Your task to perform on an android device: open chrome and create a bookmark for the current page Image 0: 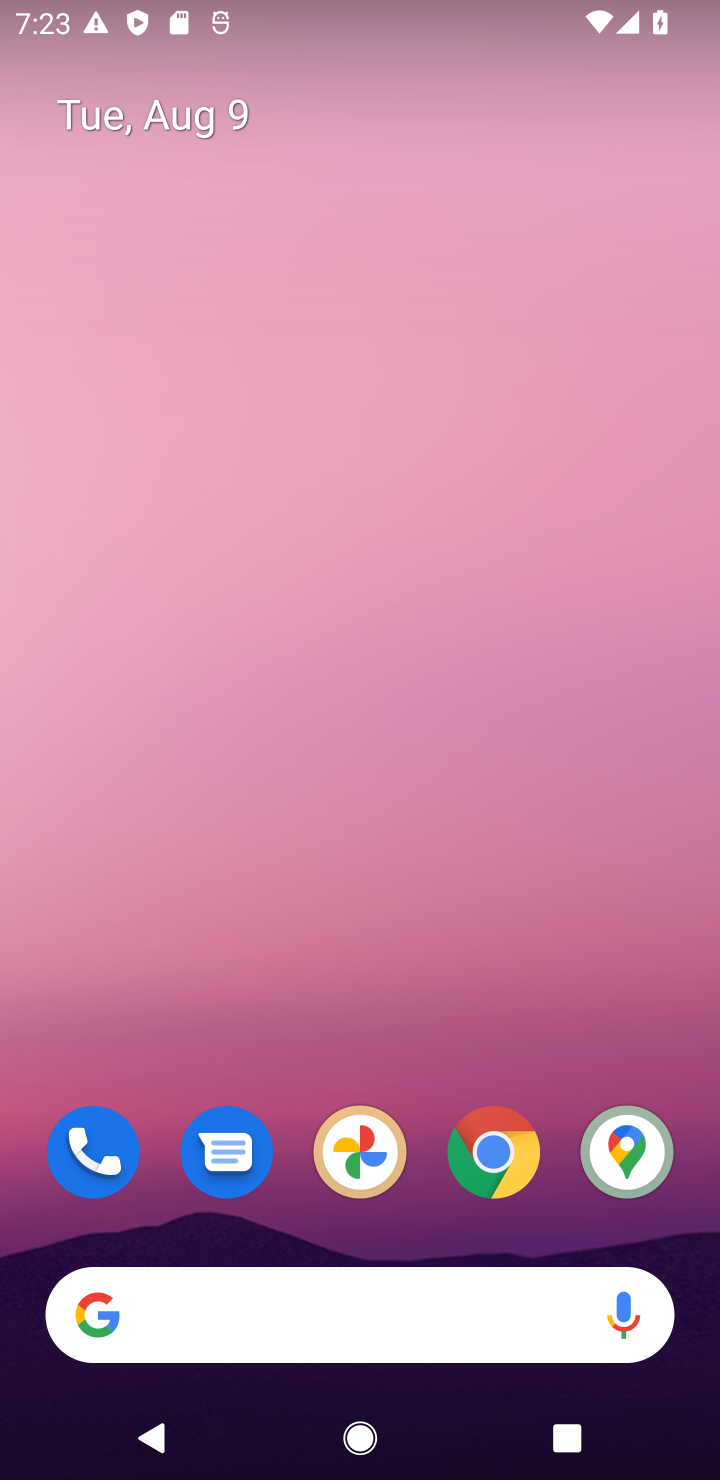
Step 0: click (471, 1171)
Your task to perform on an android device: open chrome and create a bookmark for the current page Image 1: 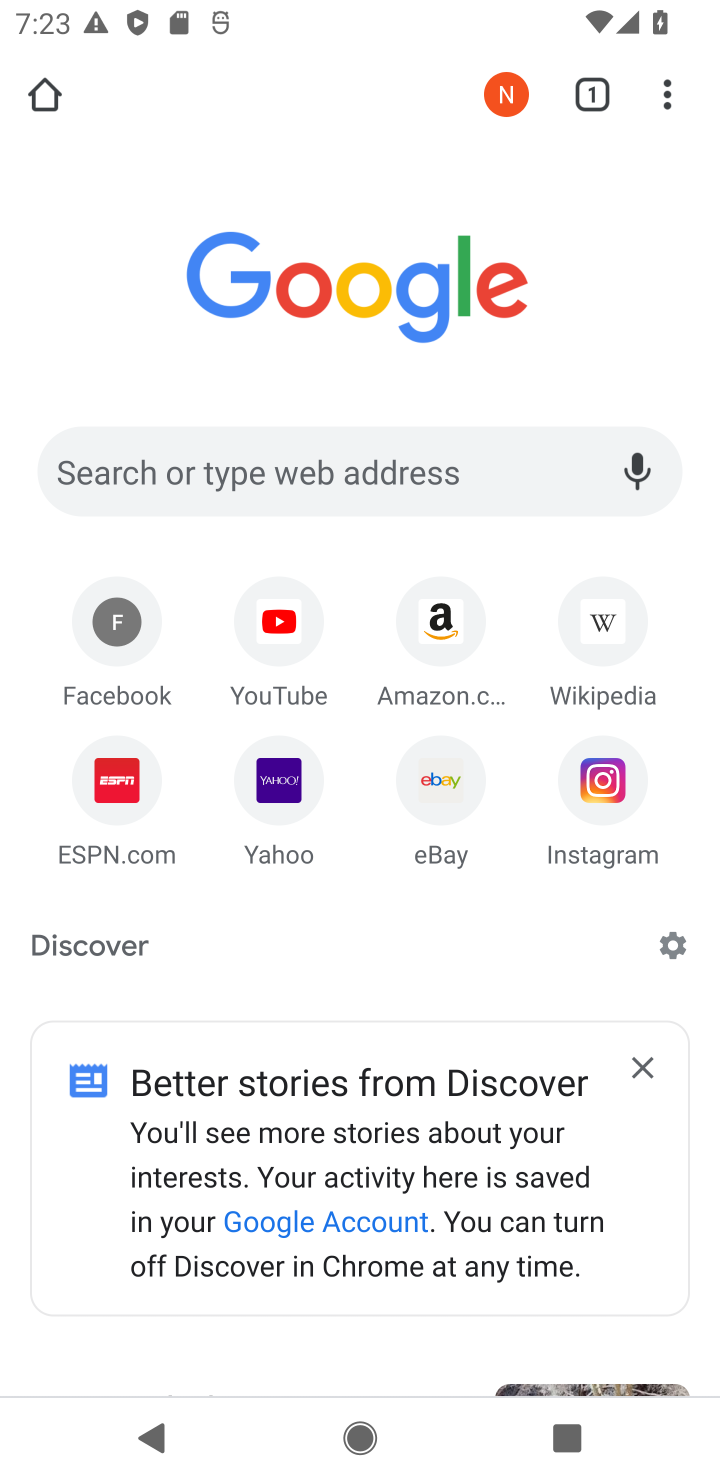
Step 1: click (680, 105)
Your task to perform on an android device: open chrome and create a bookmark for the current page Image 2: 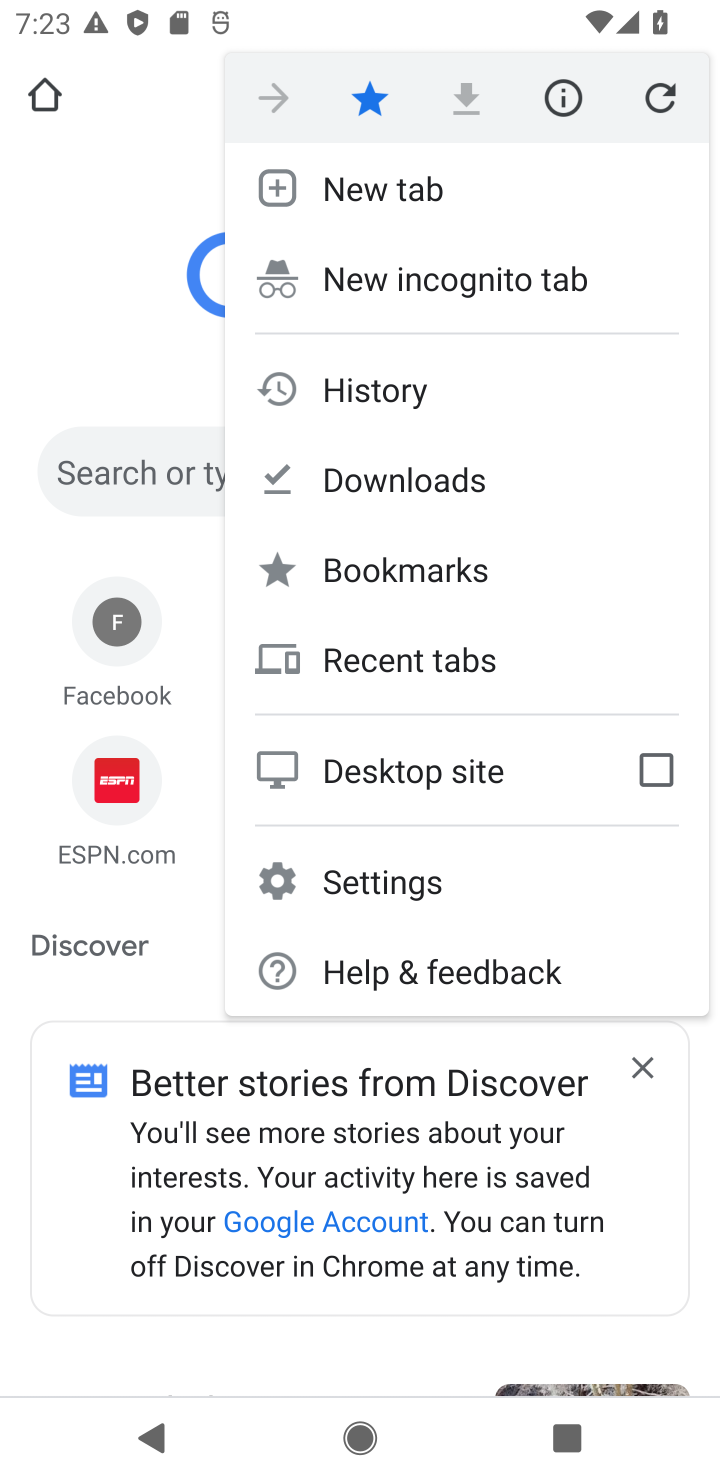
Step 2: click (407, 561)
Your task to perform on an android device: open chrome and create a bookmark for the current page Image 3: 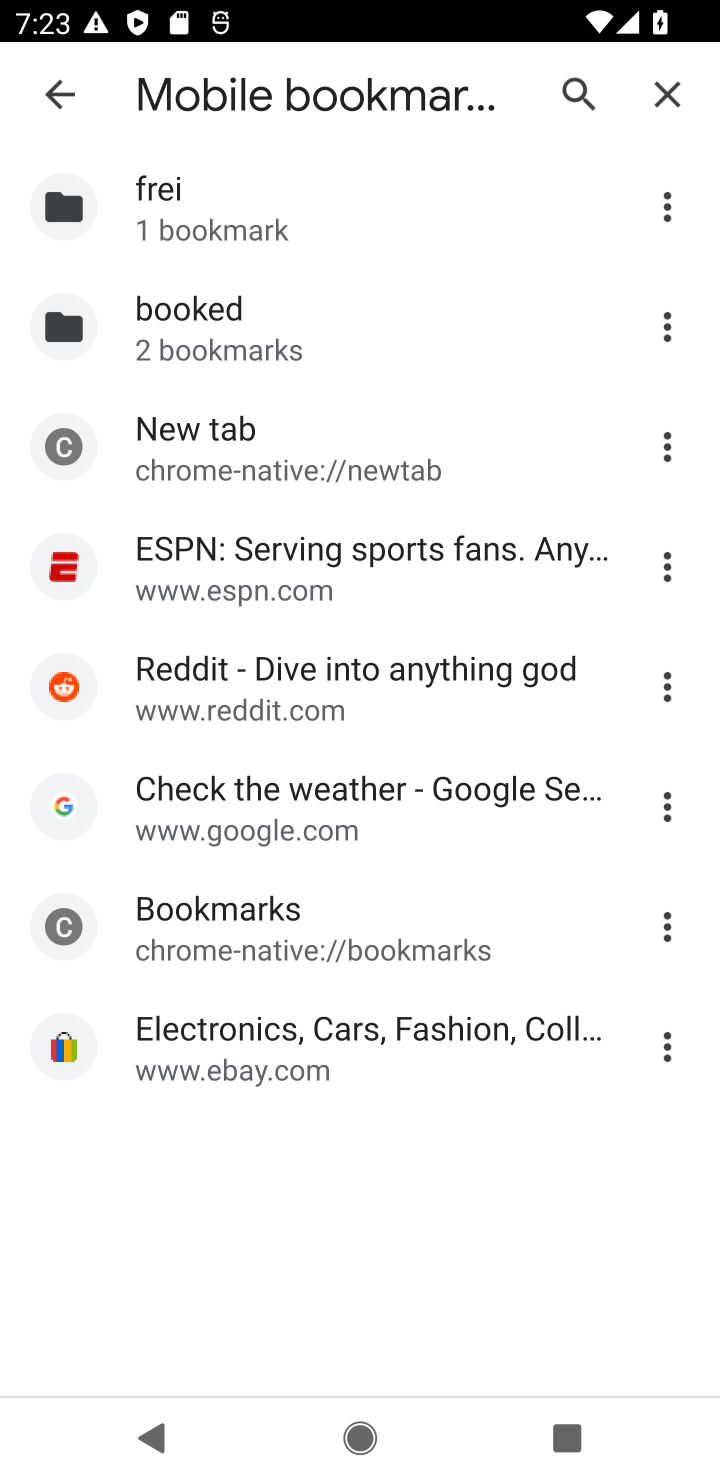
Step 3: task complete